Your task to perform on an android device: What's the weather? Image 0: 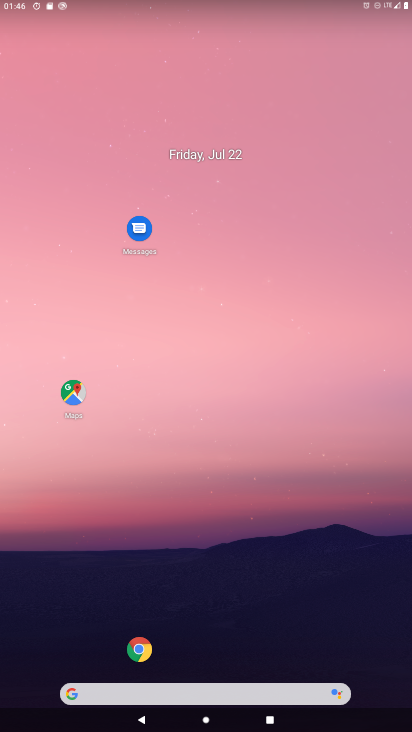
Step 0: click (109, 694)
Your task to perform on an android device: What's the weather? Image 1: 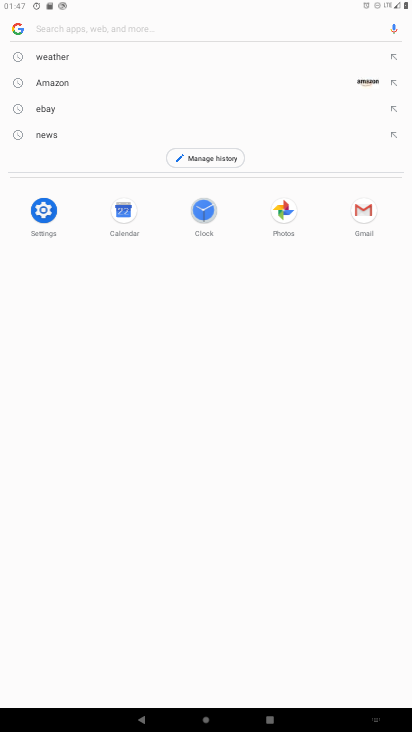
Step 1: type "What's the weather?"
Your task to perform on an android device: What's the weather? Image 2: 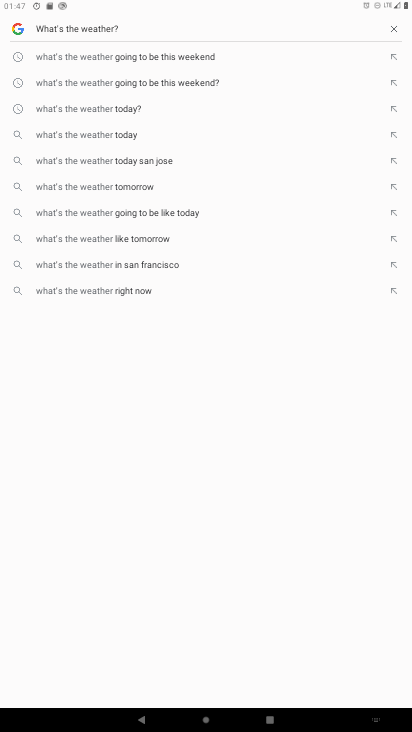
Step 2: type ""
Your task to perform on an android device: What's the weather? Image 3: 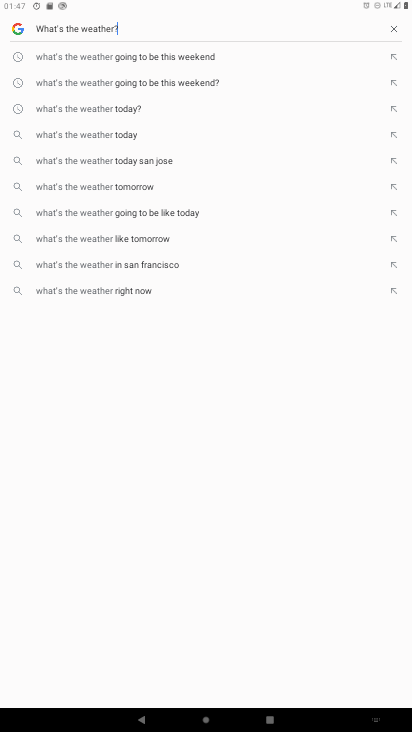
Step 3: type ""
Your task to perform on an android device: What's the weather? Image 4: 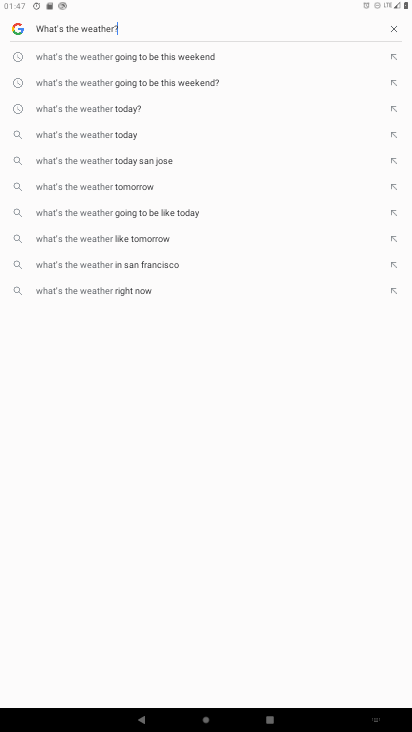
Step 4: task complete